Your task to perform on an android device: Do I have any events today? Image 0: 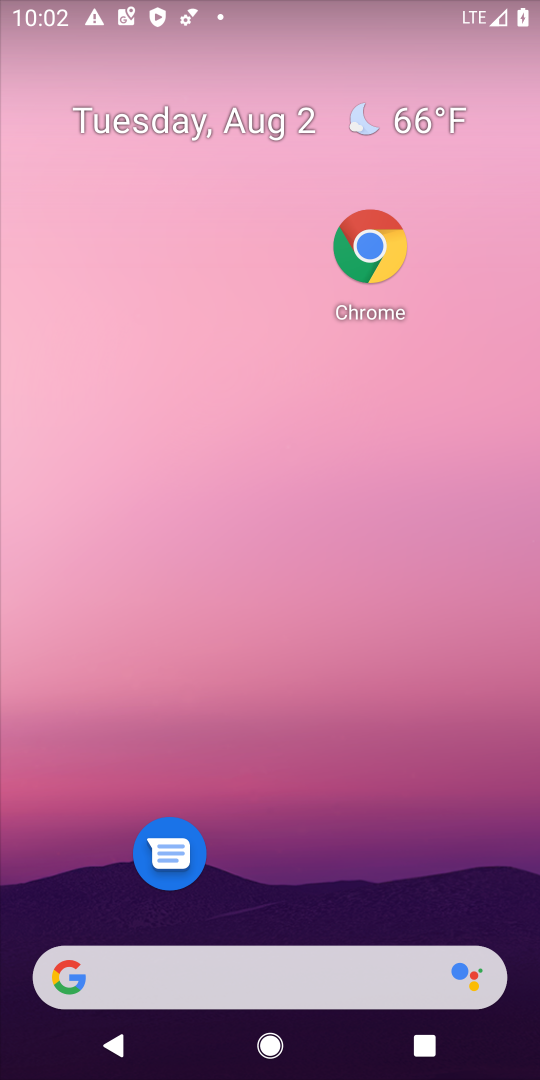
Step 0: drag from (296, 954) to (247, 88)
Your task to perform on an android device: Do I have any events today? Image 1: 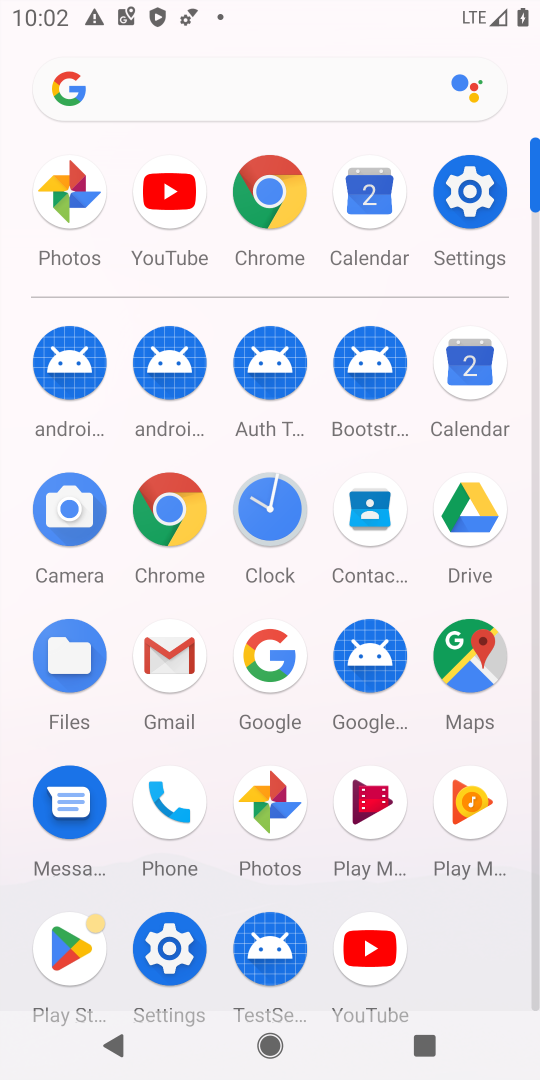
Step 1: click (458, 367)
Your task to perform on an android device: Do I have any events today? Image 2: 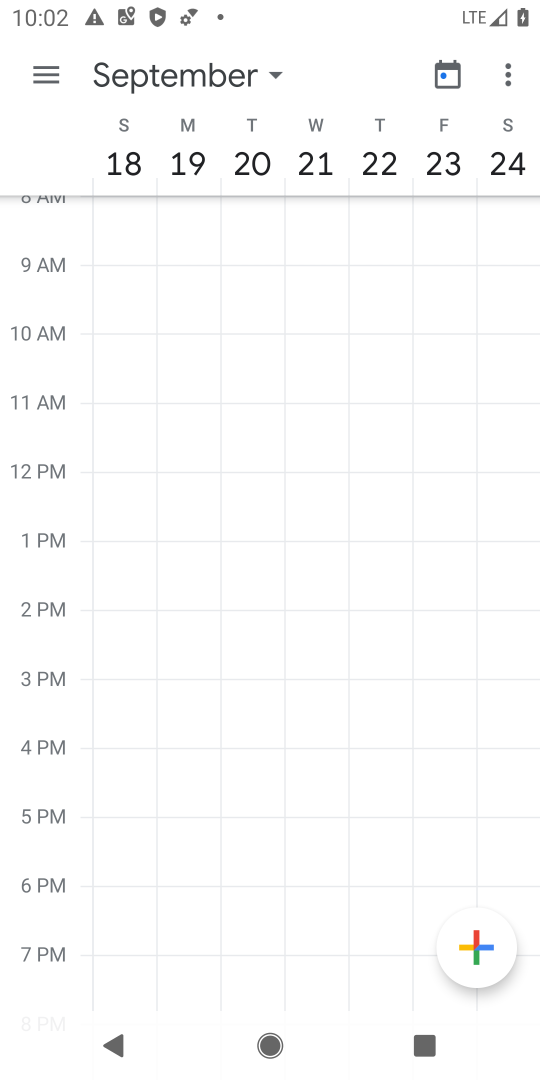
Step 2: click (418, 79)
Your task to perform on an android device: Do I have any events today? Image 3: 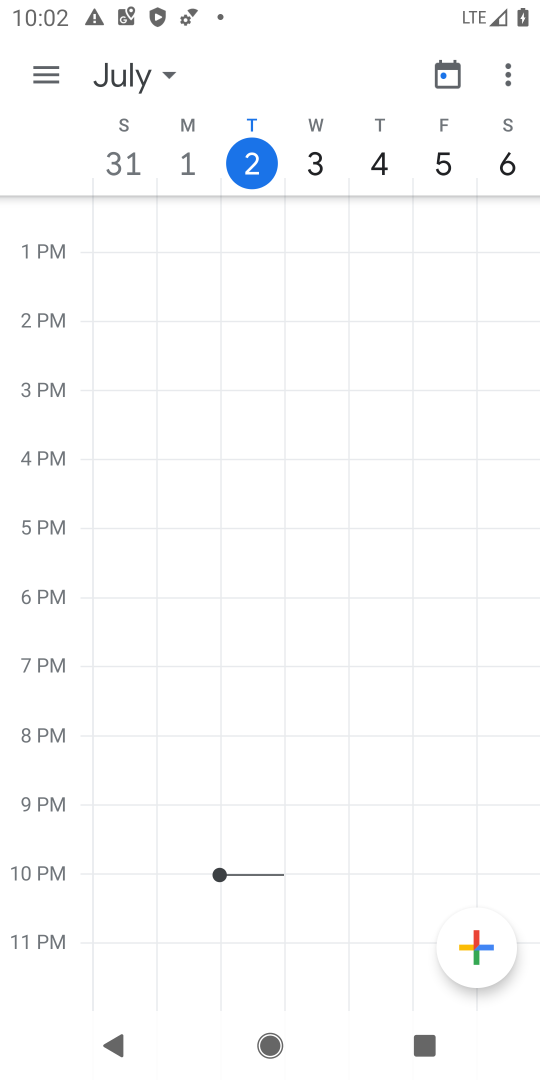
Step 3: click (268, 163)
Your task to perform on an android device: Do I have any events today? Image 4: 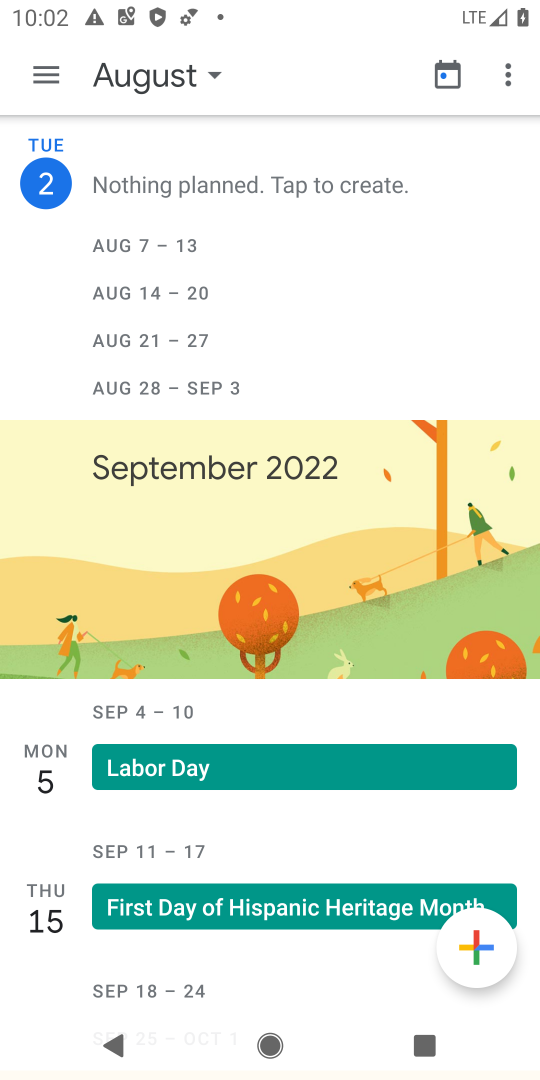
Step 4: task complete